Your task to perform on an android device: Open location settings Image 0: 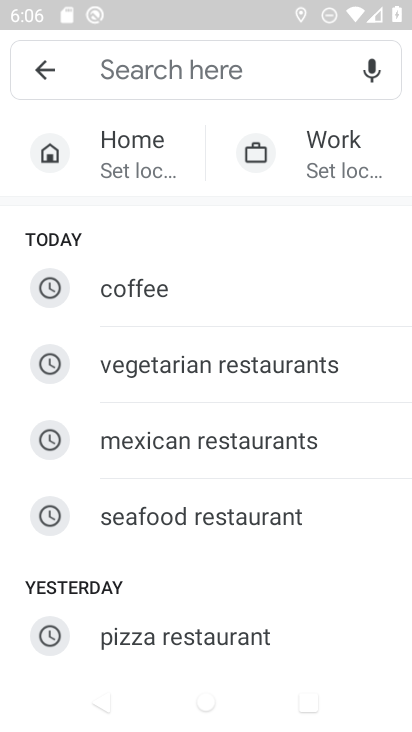
Step 0: press home button
Your task to perform on an android device: Open location settings Image 1: 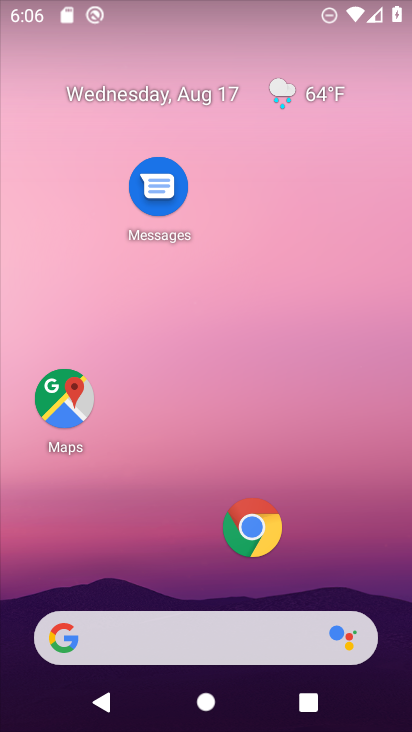
Step 1: drag from (152, 553) to (156, 266)
Your task to perform on an android device: Open location settings Image 2: 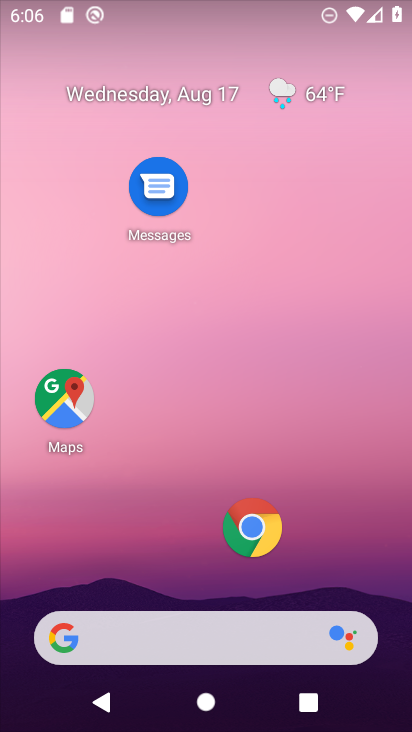
Step 2: drag from (201, 564) to (201, 195)
Your task to perform on an android device: Open location settings Image 3: 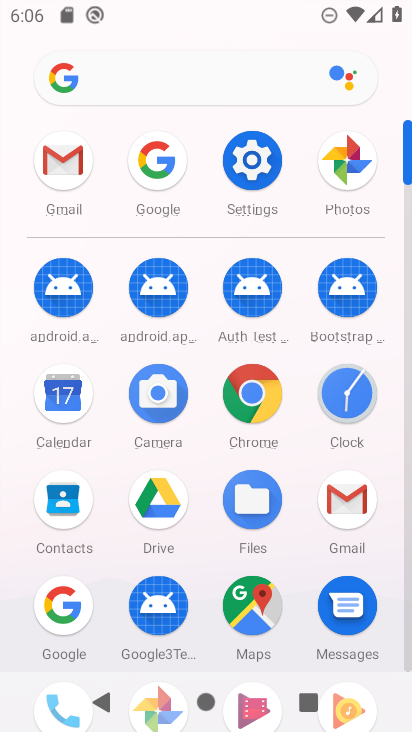
Step 3: click (242, 168)
Your task to perform on an android device: Open location settings Image 4: 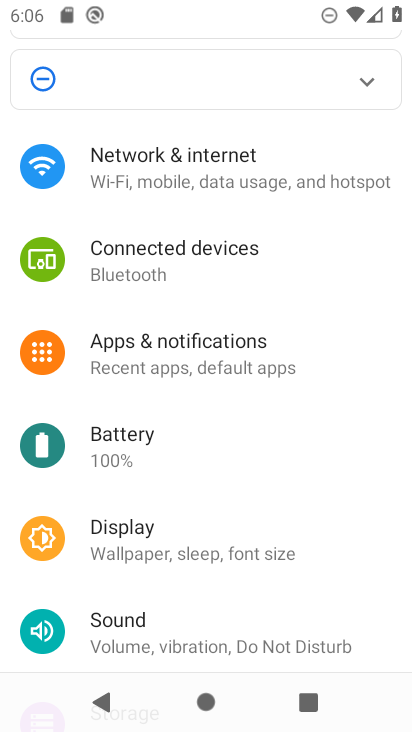
Step 4: drag from (150, 641) to (150, 325)
Your task to perform on an android device: Open location settings Image 5: 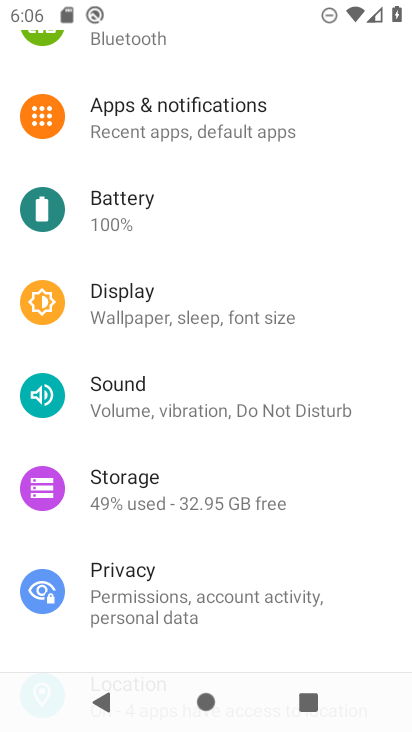
Step 5: drag from (158, 624) to (152, 301)
Your task to perform on an android device: Open location settings Image 6: 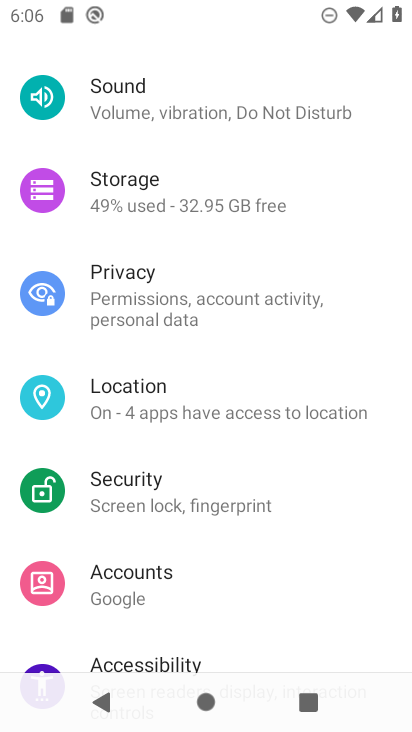
Step 6: click (119, 399)
Your task to perform on an android device: Open location settings Image 7: 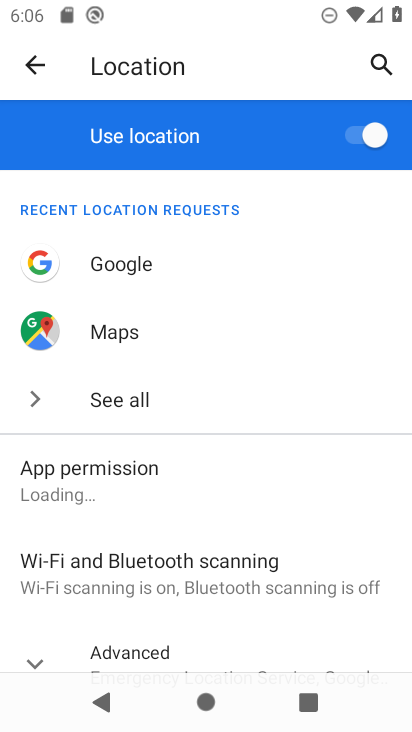
Step 7: drag from (170, 581) to (170, 258)
Your task to perform on an android device: Open location settings Image 8: 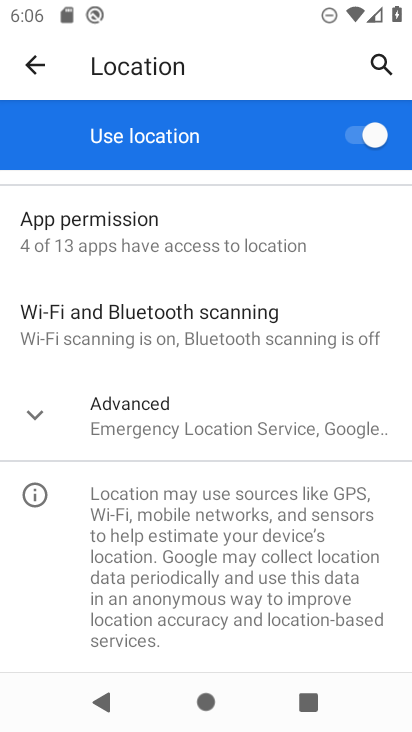
Step 8: click (119, 468)
Your task to perform on an android device: Open location settings Image 9: 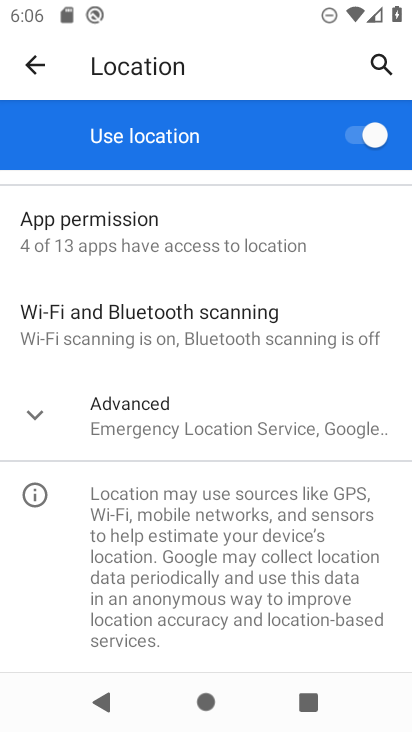
Step 9: click (113, 438)
Your task to perform on an android device: Open location settings Image 10: 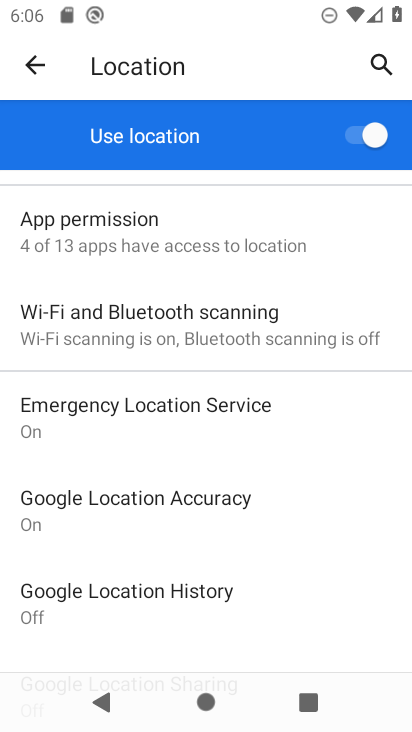
Step 10: task complete